Your task to perform on an android device: turn off notifications settings in the gmail app Image 0: 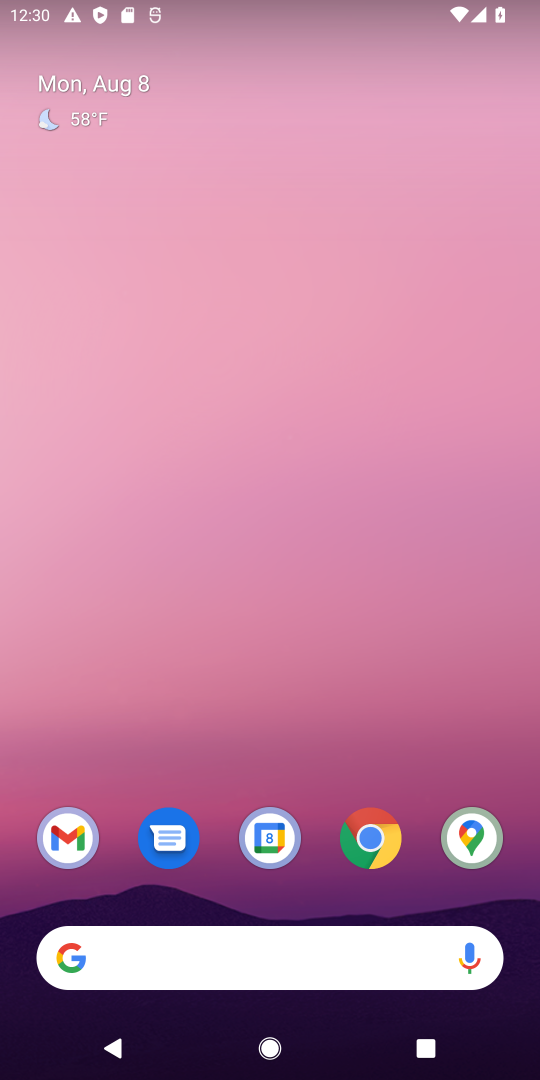
Step 0: press home button
Your task to perform on an android device: turn off notifications settings in the gmail app Image 1: 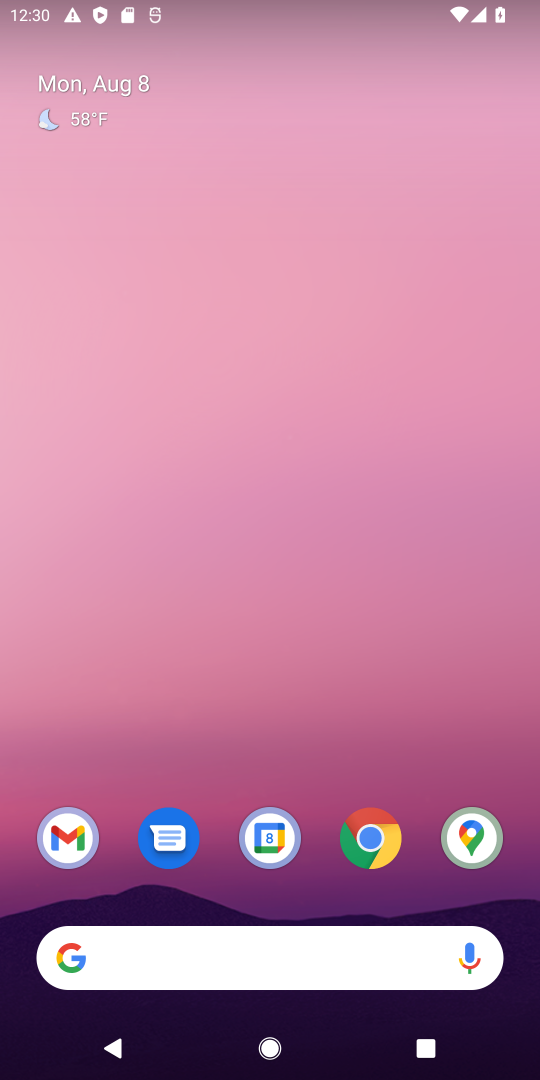
Step 1: drag from (224, 891) to (345, 206)
Your task to perform on an android device: turn off notifications settings in the gmail app Image 2: 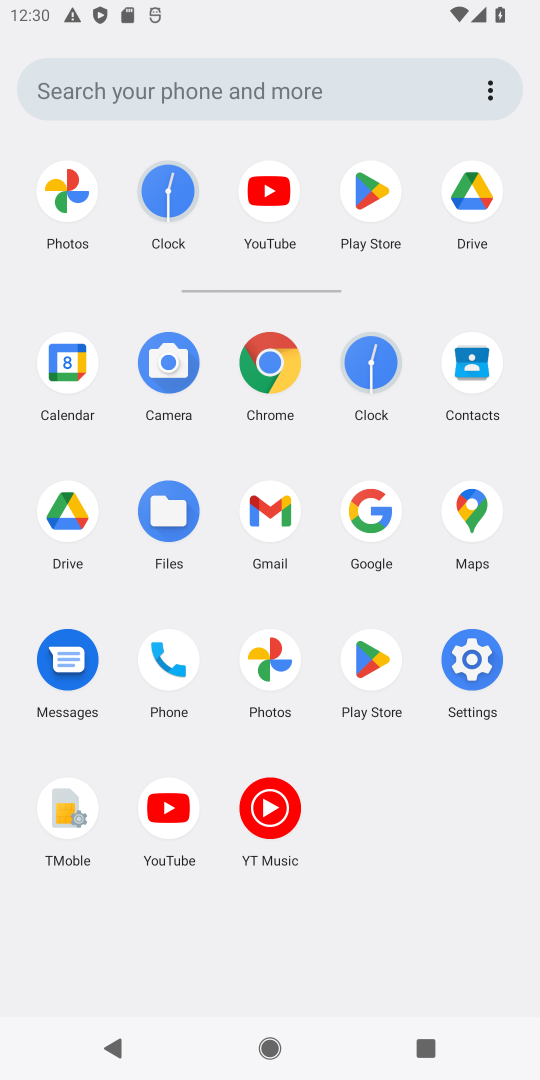
Step 2: click (265, 519)
Your task to perform on an android device: turn off notifications settings in the gmail app Image 3: 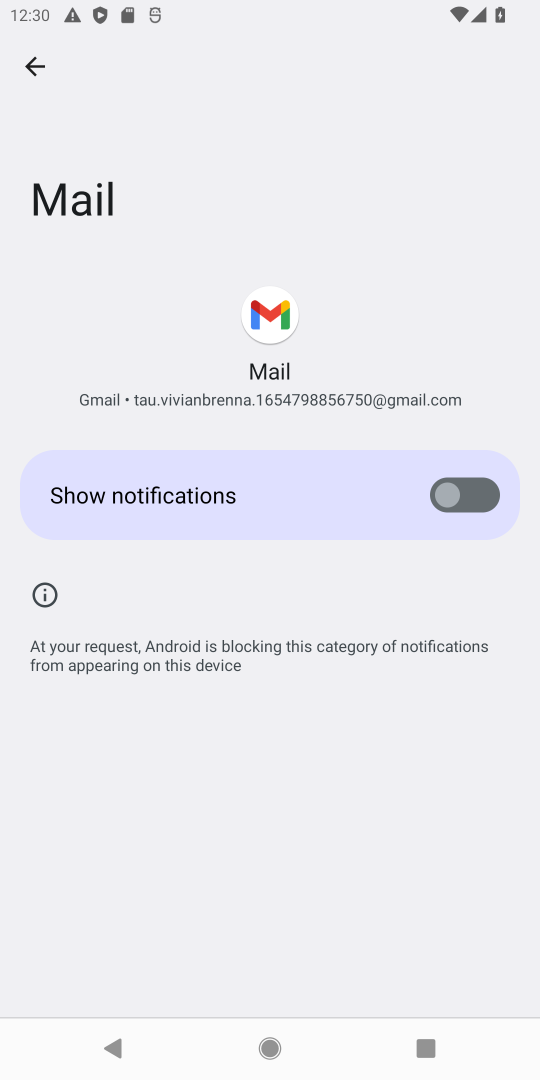
Step 3: click (29, 70)
Your task to perform on an android device: turn off notifications settings in the gmail app Image 4: 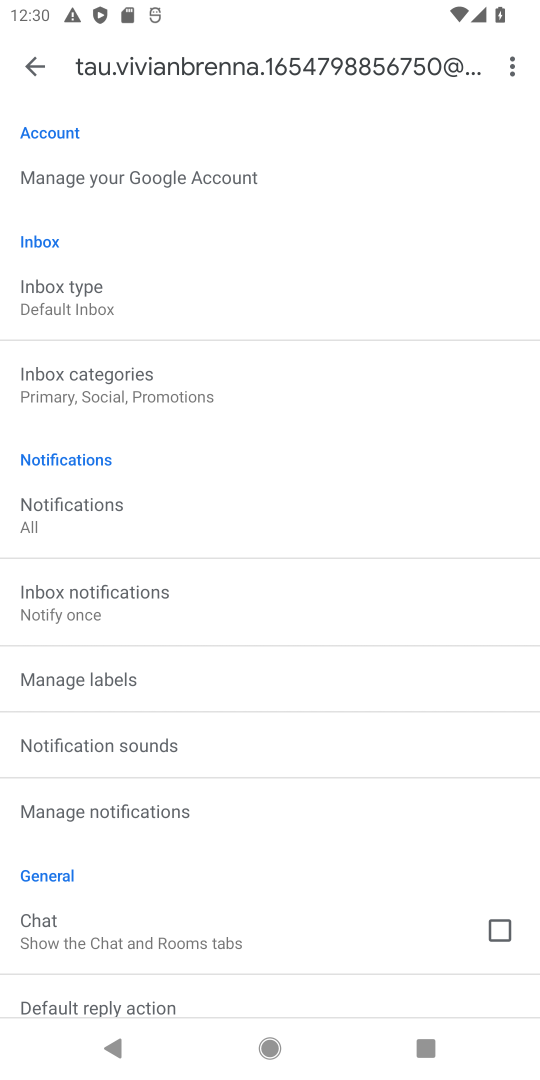
Step 4: click (29, 70)
Your task to perform on an android device: turn off notifications settings in the gmail app Image 5: 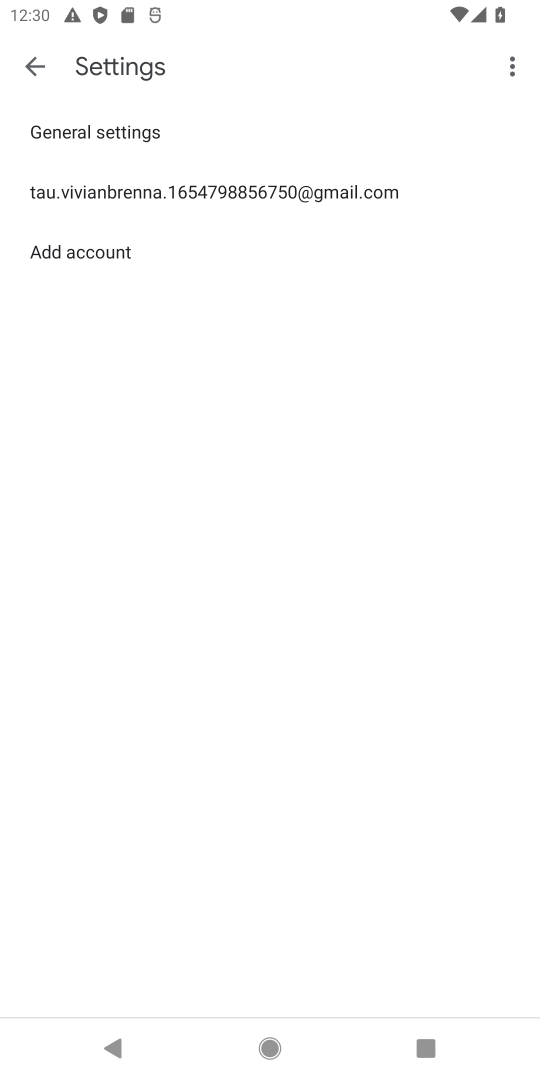
Step 5: click (159, 198)
Your task to perform on an android device: turn off notifications settings in the gmail app Image 6: 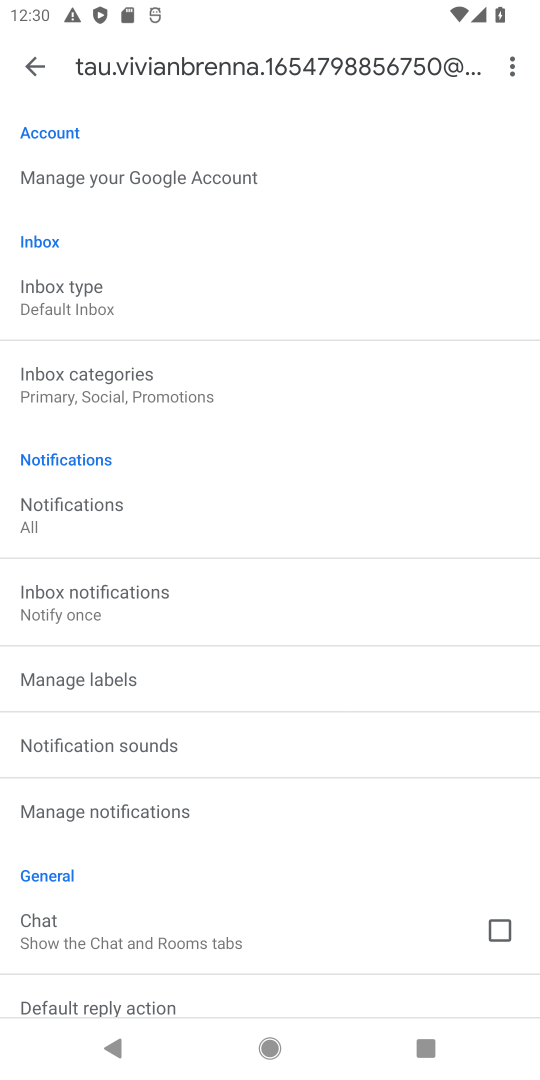
Step 6: click (122, 814)
Your task to perform on an android device: turn off notifications settings in the gmail app Image 7: 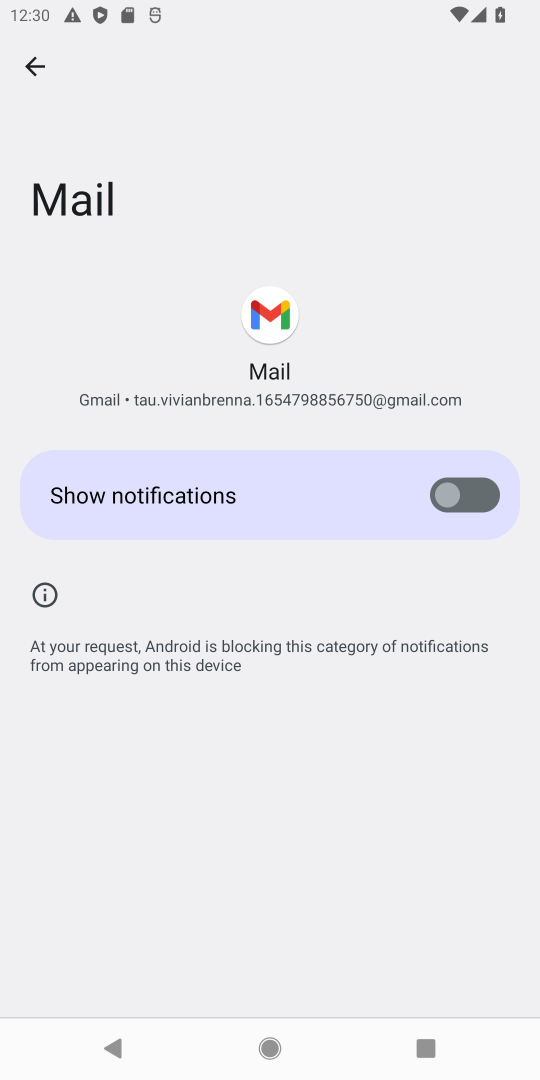
Step 7: task complete